Your task to perform on an android device: Open calendar and show me the third week of next month Image 0: 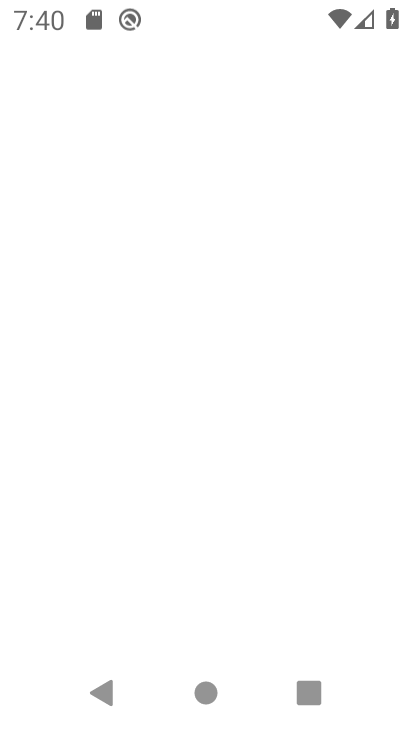
Step 0: drag from (391, 708) to (383, 238)
Your task to perform on an android device: Open calendar and show me the third week of next month Image 1: 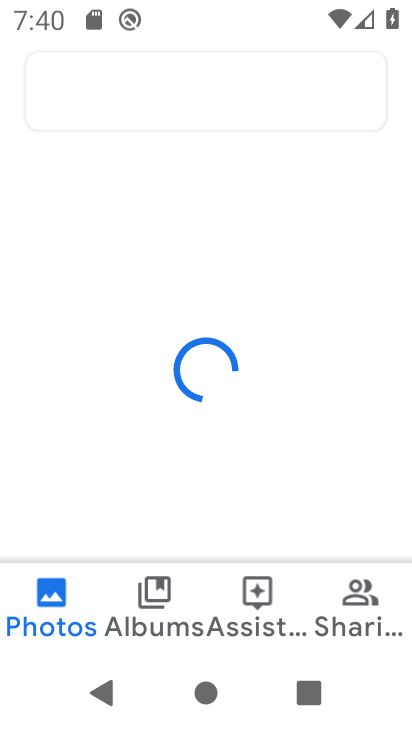
Step 1: press home button
Your task to perform on an android device: Open calendar and show me the third week of next month Image 2: 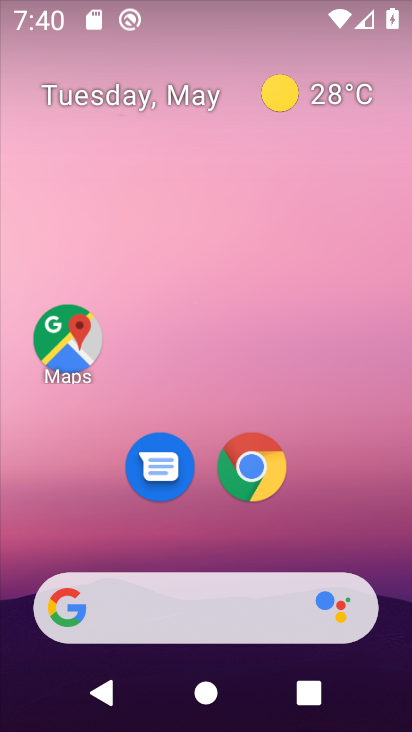
Step 2: click (378, 243)
Your task to perform on an android device: Open calendar and show me the third week of next month Image 3: 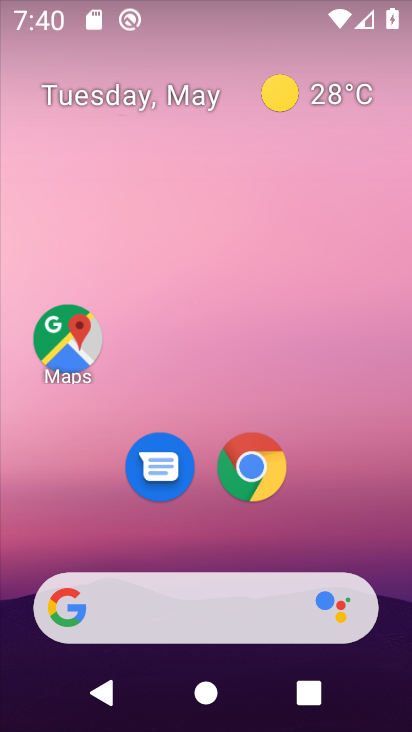
Step 3: drag from (389, 676) to (368, 166)
Your task to perform on an android device: Open calendar and show me the third week of next month Image 4: 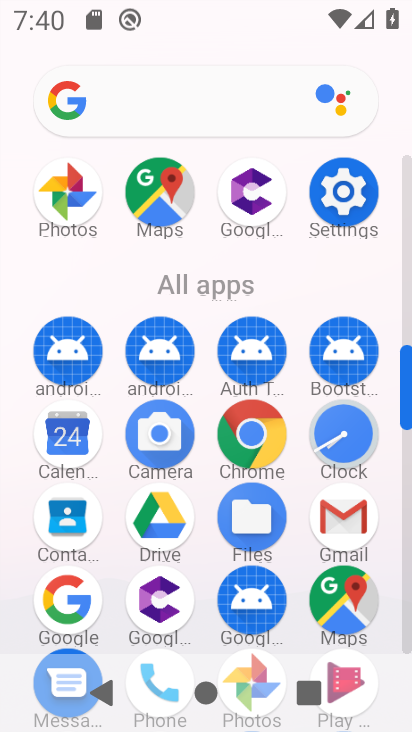
Step 4: click (71, 446)
Your task to perform on an android device: Open calendar and show me the third week of next month Image 5: 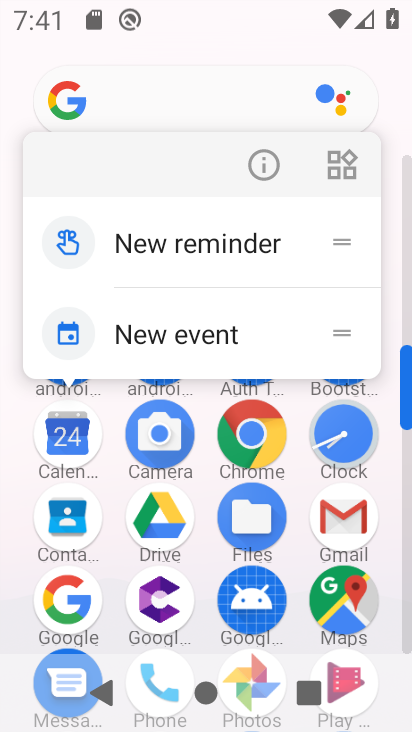
Step 5: click (74, 439)
Your task to perform on an android device: Open calendar and show me the third week of next month Image 6: 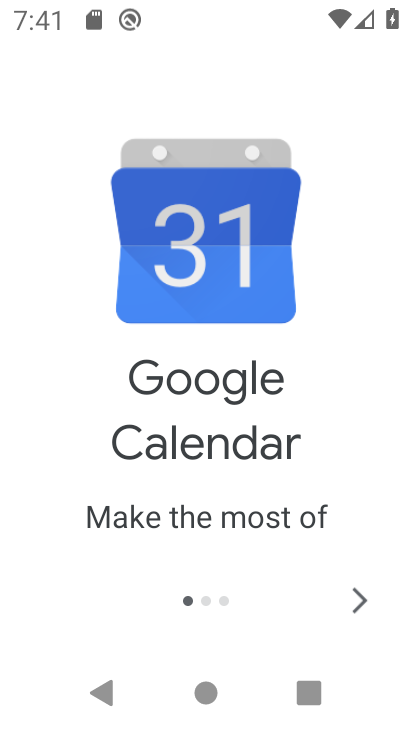
Step 6: click (350, 600)
Your task to perform on an android device: Open calendar and show me the third week of next month Image 7: 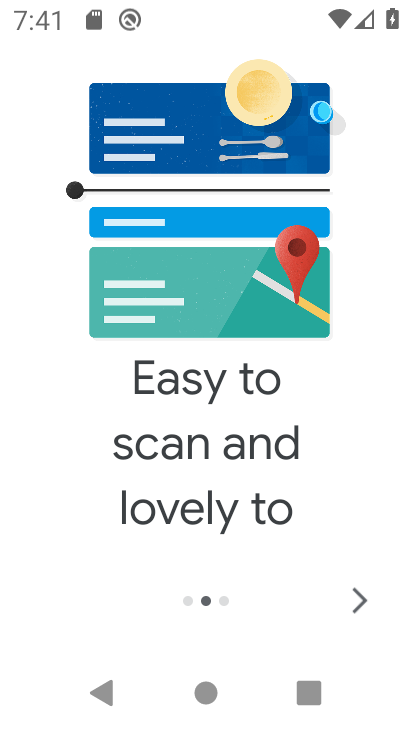
Step 7: click (350, 600)
Your task to perform on an android device: Open calendar and show me the third week of next month Image 8: 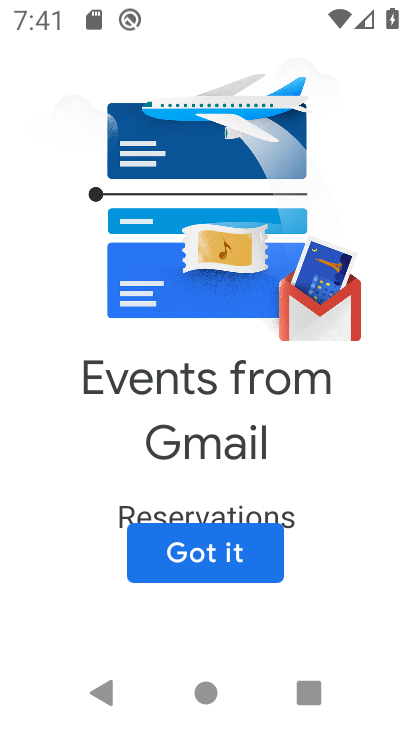
Step 8: click (221, 551)
Your task to perform on an android device: Open calendar and show me the third week of next month Image 9: 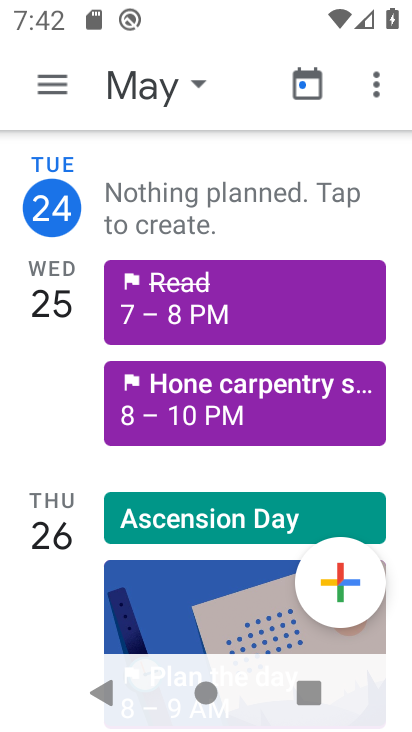
Step 9: click (201, 86)
Your task to perform on an android device: Open calendar and show me the third week of next month Image 10: 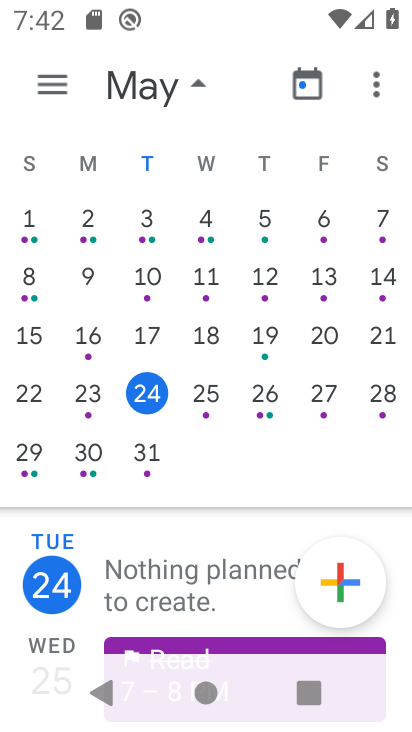
Step 10: drag from (402, 247) to (50, 260)
Your task to perform on an android device: Open calendar and show me the third week of next month Image 11: 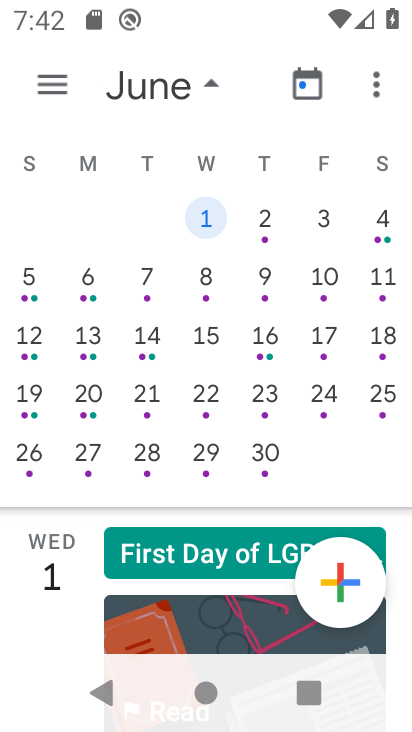
Step 11: click (206, 336)
Your task to perform on an android device: Open calendar and show me the third week of next month Image 12: 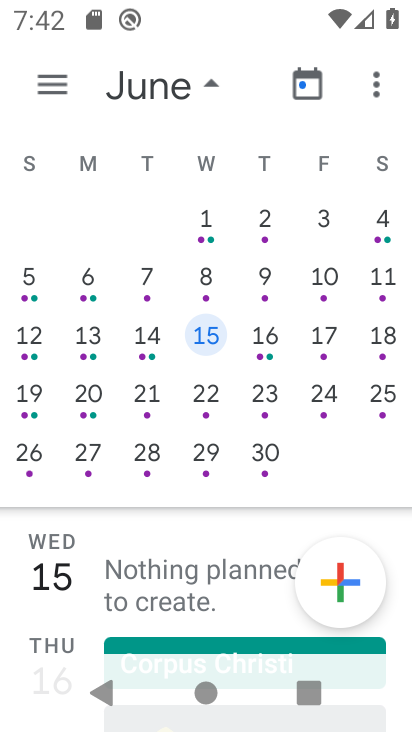
Step 12: click (63, 78)
Your task to perform on an android device: Open calendar and show me the third week of next month Image 13: 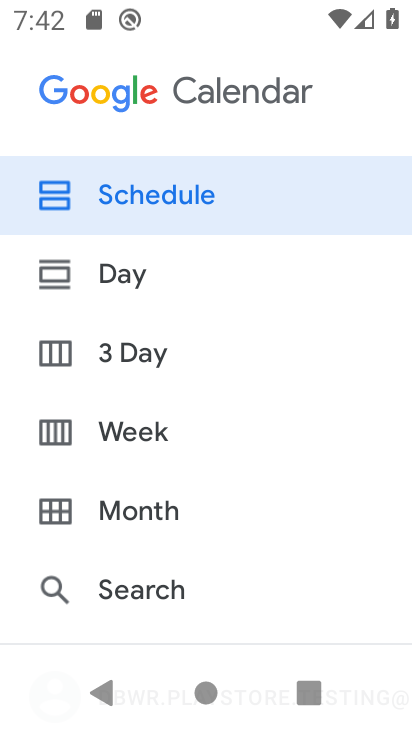
Step 13: click (138, 433)
Your task to perform on an android device: Open calendar and show me the third week of next month Image 14: 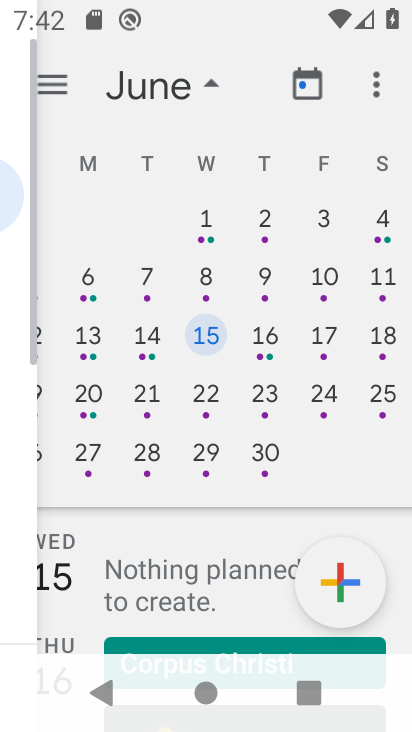
Step 14: click (125, 431)
Your task to perform on an android device: Open calendar and show me the third week of next month Image 15: 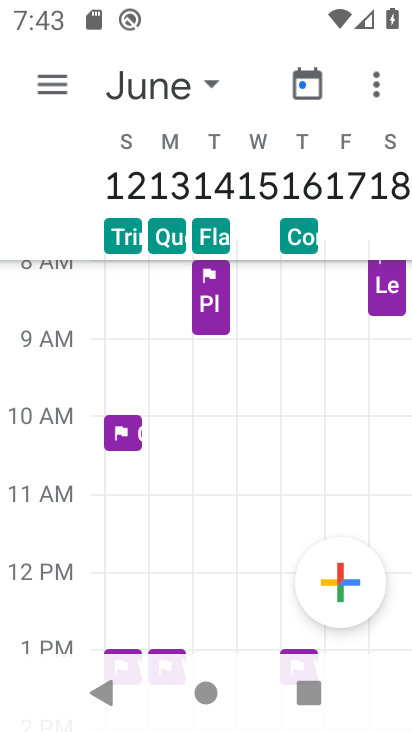
Step 15: task complete